Your task to perform on an android device: Show me popular games on the Play Store Image 0: 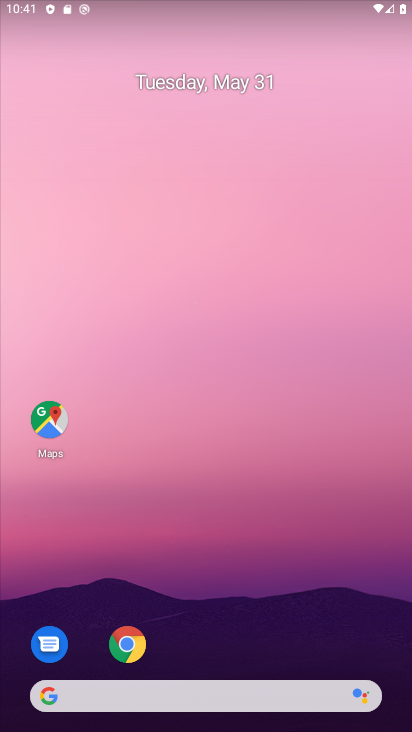
Step 0: drag from (201, 647) to (265, 127)
Your task to perform on an android device: Show me popular games on the Play Store Image 1: 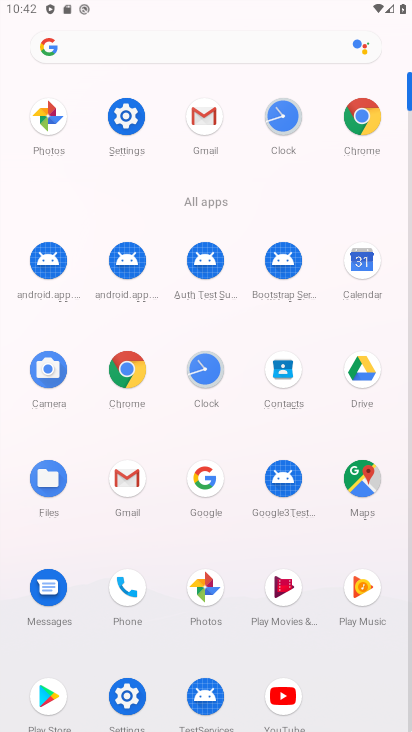
Step 1: click (52, 701)
Your task to perform on an android device: Show me popular games on the Play Store Image 2: 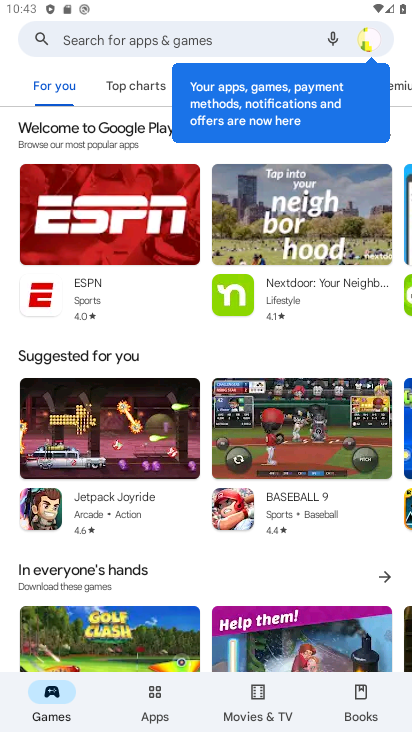
Step 2: click (194, 38)
Your task to perform on an android device: Show me popular games on the Play Store Image 3: 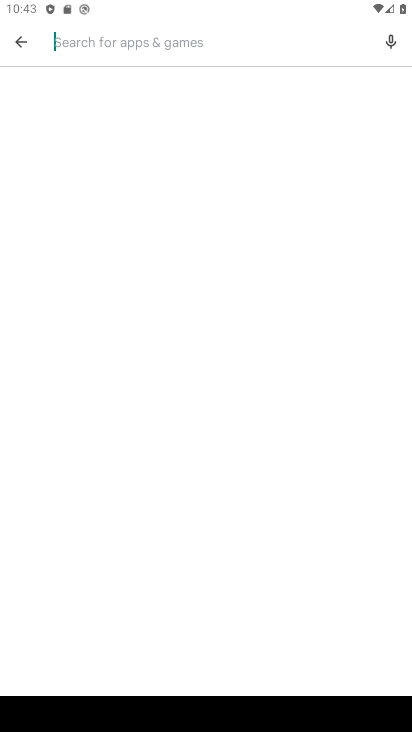
Step 3: type "popular games"
Your task to perform on an android device: Show me popular games on the Play Store Image 4: 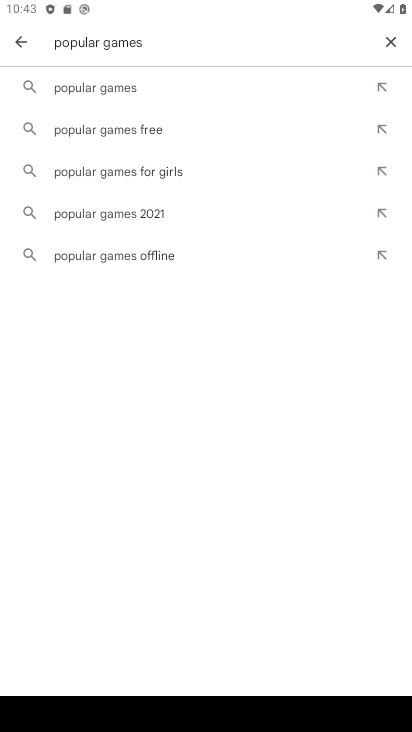
Step 4: click (83, 85)
Your task to perform on an android device: Show me popular games on the Play Store Image 5: 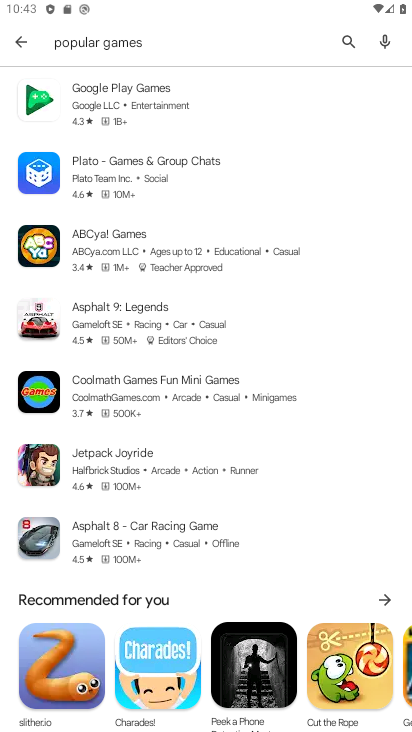
Step 5: task complete